Your task to perform on an android device: Go to settings Image 0: 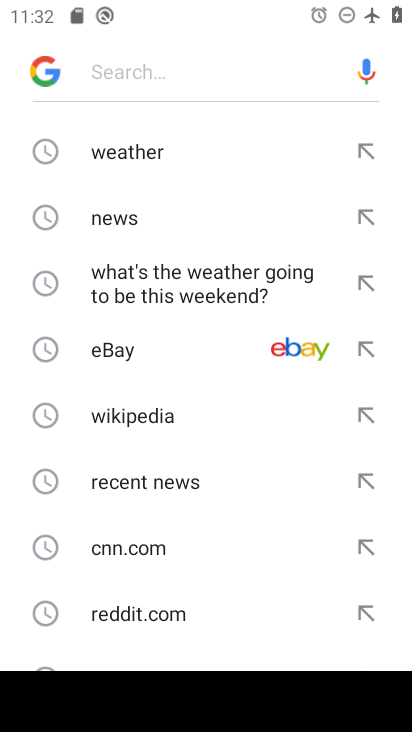
Step 0: press home button
Your task to perform on an android device: Go to settings Image 1: 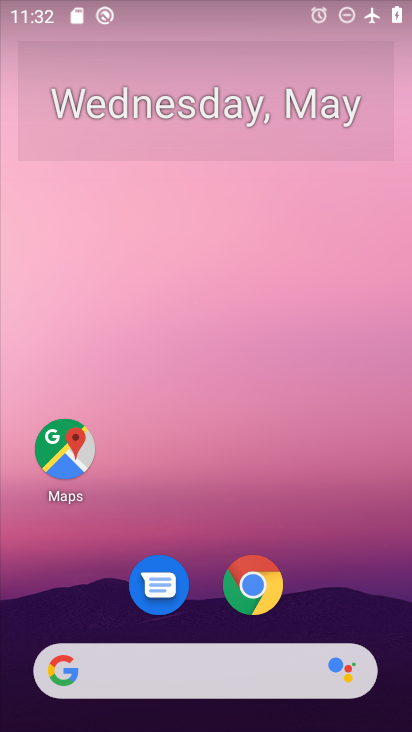
Step 1: drag from (274, 475) to (269, 56)
Your task to perform on an android device: Go to settings Image 2: 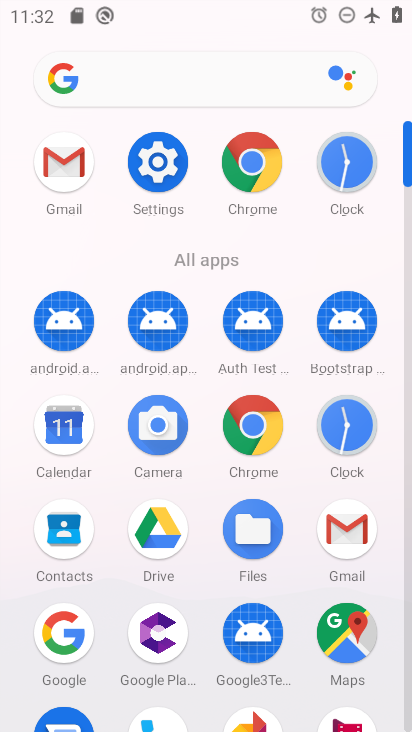
Step 2: click (160, 162)
Your task to perform on an android device: Go to settings Image 3: 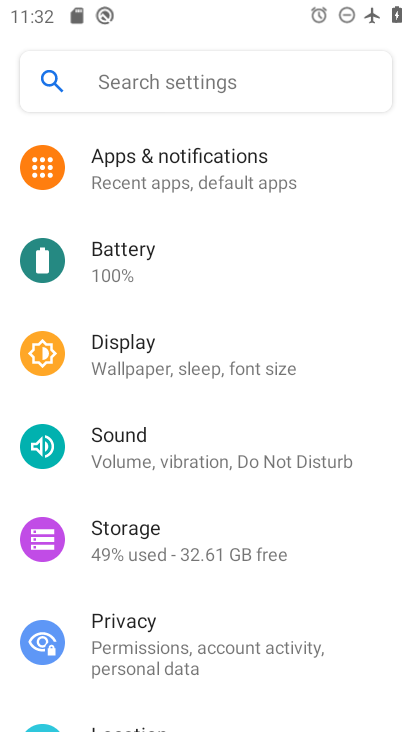
Step 3: task complete